Your task to perform on an android device: turn off airplane mode Image 0: 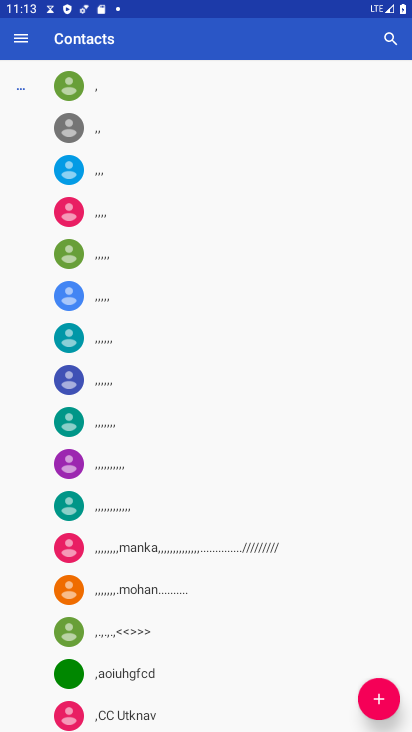
Step 0: drag from (215, 585) to (215, 150)
Your task to perform on an android device: turn off airplane mode Image 1: 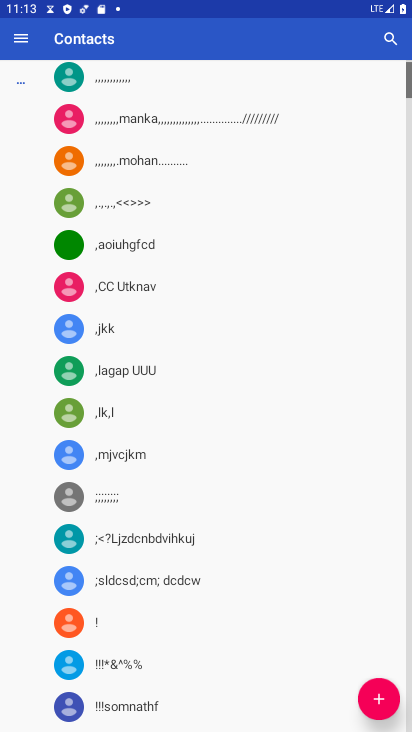
Step 1: task complete